Your task to perform on an android device: turn on showing notifications on the lock screen Image 0: 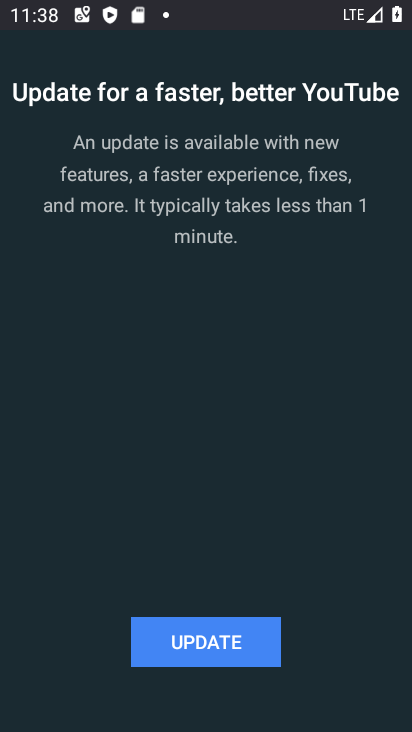
Step 0: press home button
Your task to perform on an android device: turn on showing notifications on the lock screen Image 1: 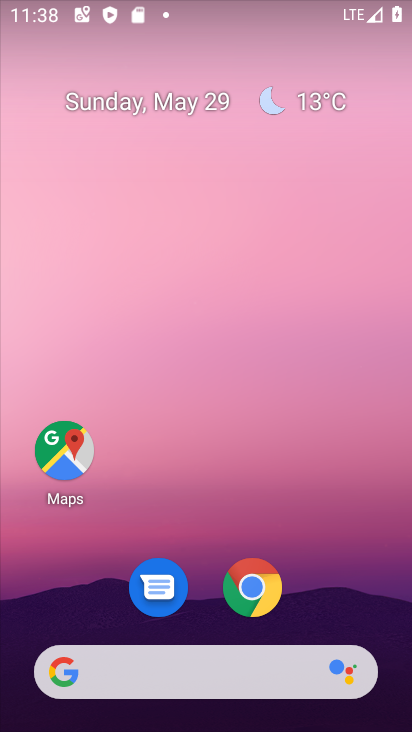
Step 1: drag from (322, 605) to (308, 112)
Your task to perform on an android device: turn on showing notifications on the lock screen Image 2: 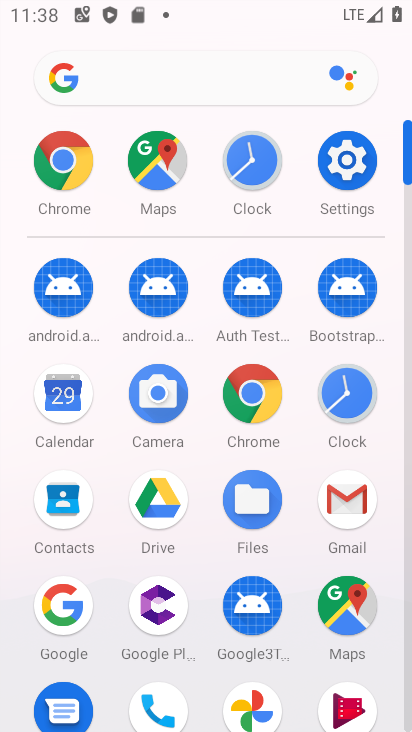
Step 2: click (337, 162)
Your task to perform on an android device: turn on showing notifications on the lock screen Image 3: 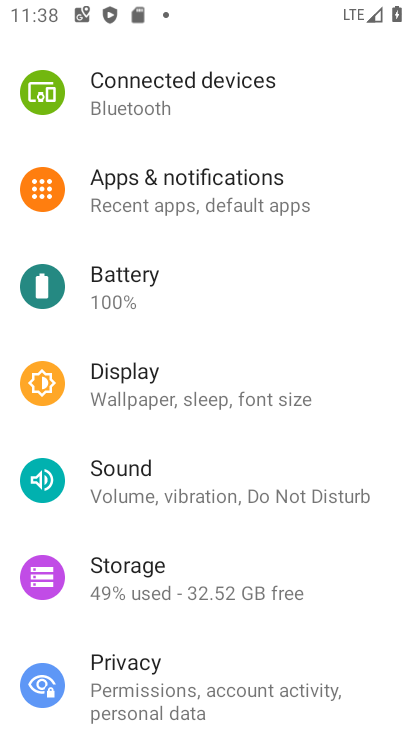
Step 3: click (234, 210)
Your task to perform on an android device: turn on showing notifications on the lock screen Image 4: 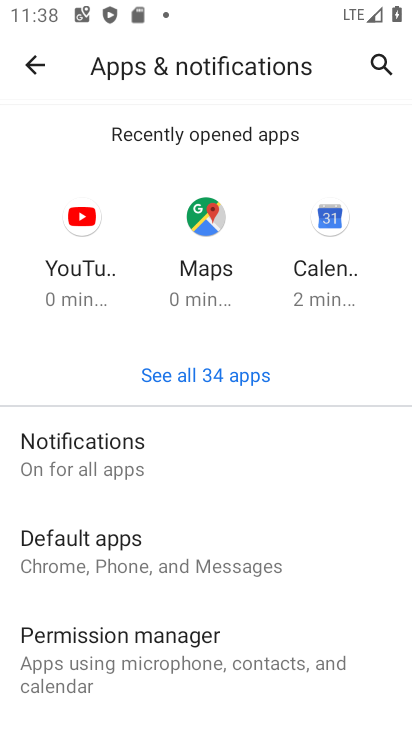
Step 4: click (141, 462)
Your task to perform on an android device: turn on showing notifications on the lock screen Image 5: 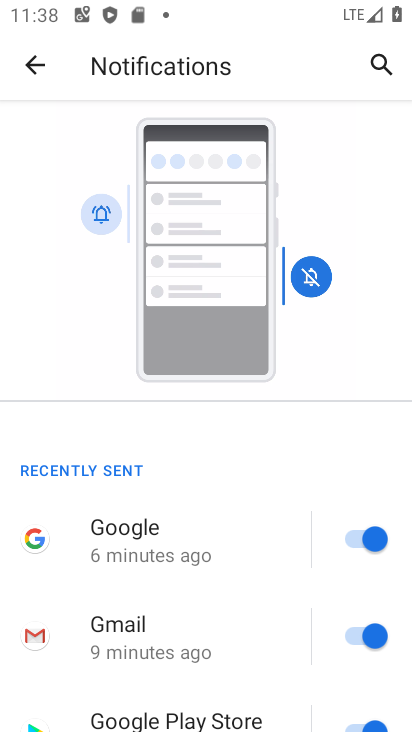
Step 5: drag from (228, 635) to (280, 226)
Your task to perform on an android device: turn on showing notifications on the lock screen Image 6: 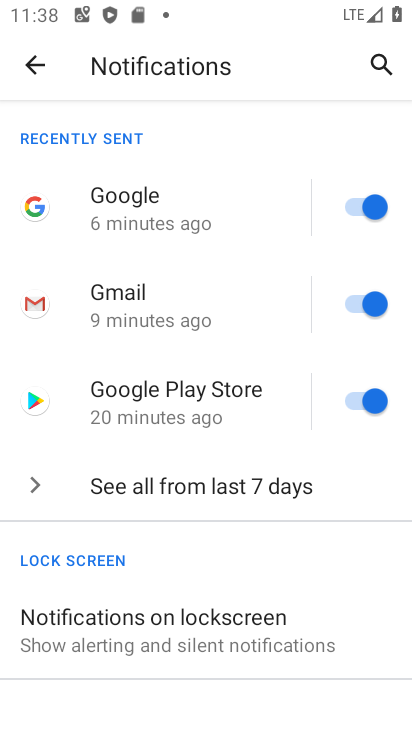
Step 6: click (179, 629)
Your task to perform on an android device: turn on showing notifications on the lock screen Image 7: 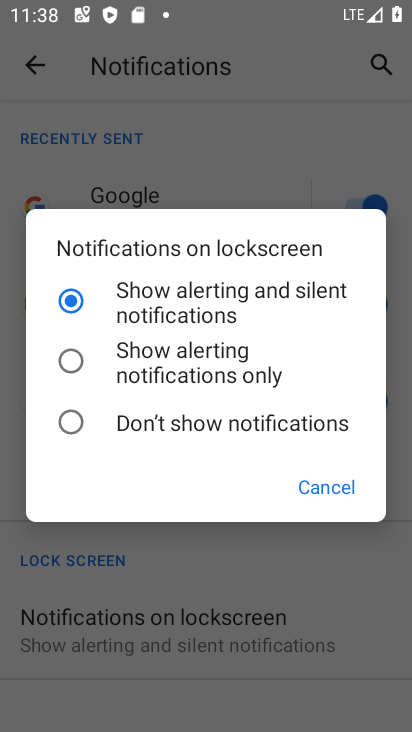
Step 7: click (212, 358)
Your task to perform on an android device: turn on showing notifications on the lock screen Image 8: 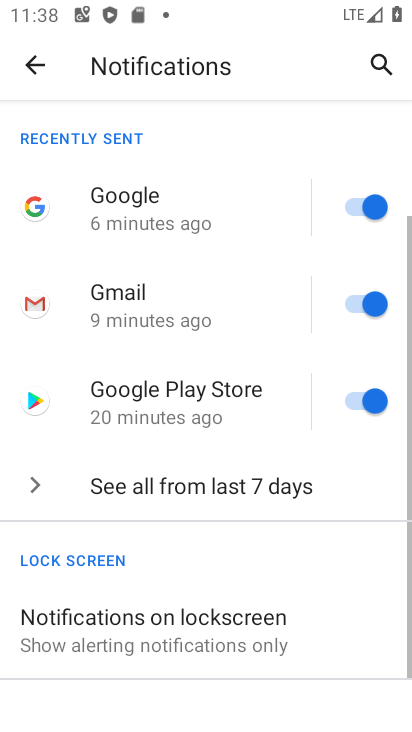
Step 8: task complete